Your task to perform on an android device: change timer sound Image 0: 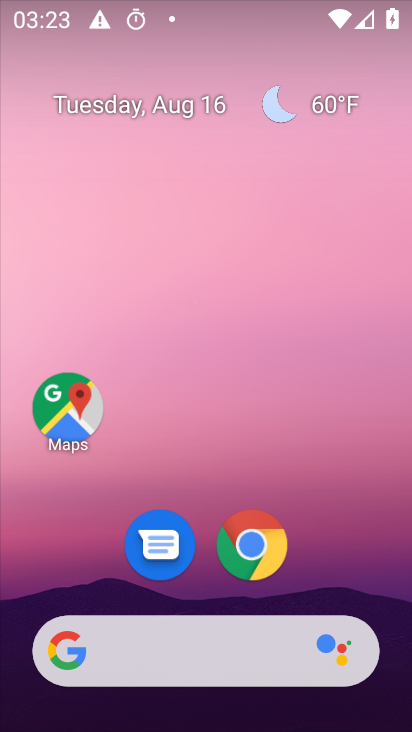
Step 0: drag from (212, 282) to (221, 159)
Your task to perform on an android device: change timer sound Image 1: 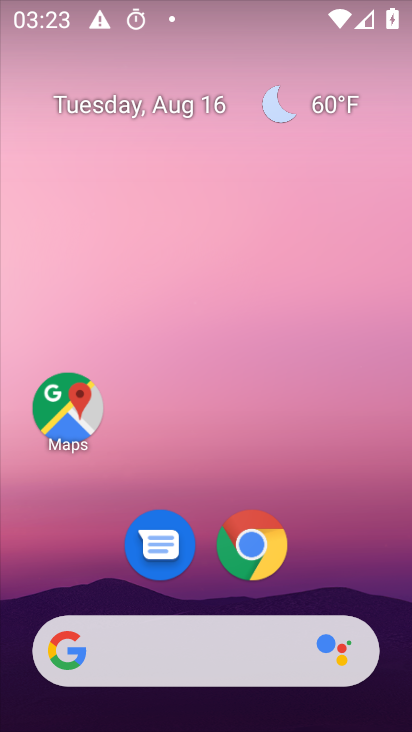
Step 1: drag from (199, 615) to (208, 113)
Your task to perform on an android device: change timer sound Image 2: 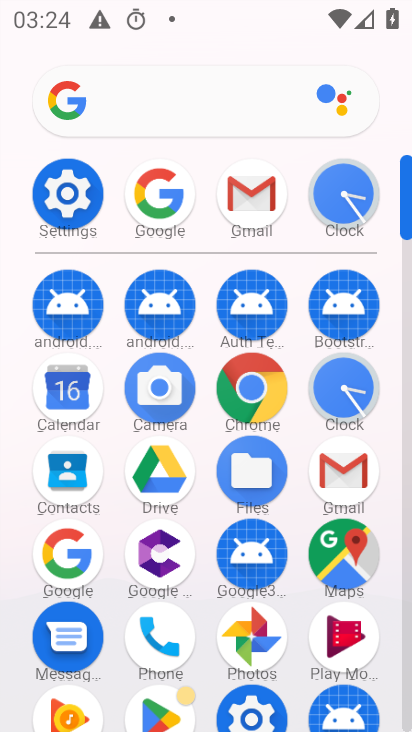
Step 2: click (344, 400)
Your task to perform on an android device: change timer sound Image 3: 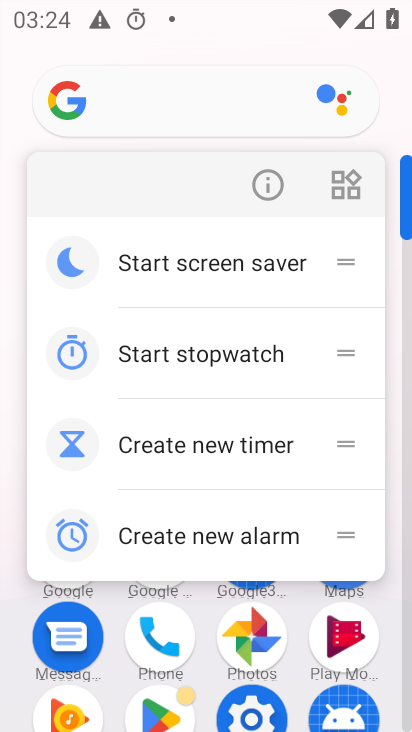
Step 3: click (295, 604)
Your task to perform on an android device: change timer sound Image 4: 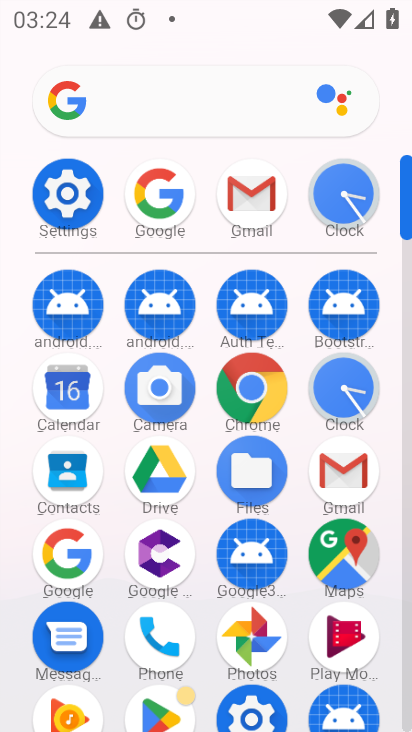
Step 4: click (355, 383)
Your task to perform on an android device: change timer sound Image 5: 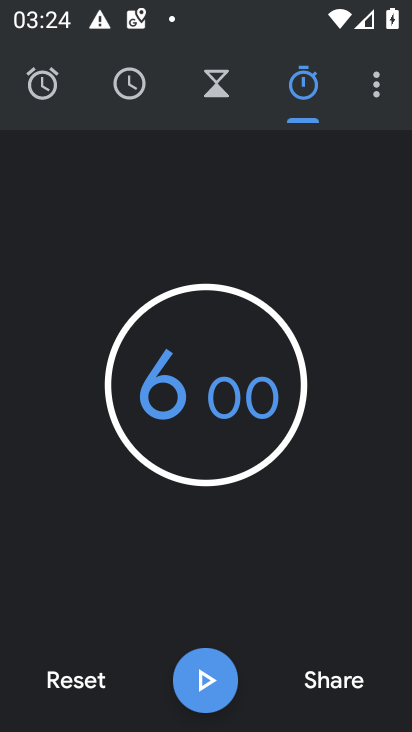
Step 5: click (368, 93)
Your task to perform on an android device: change timer sound Image 6: 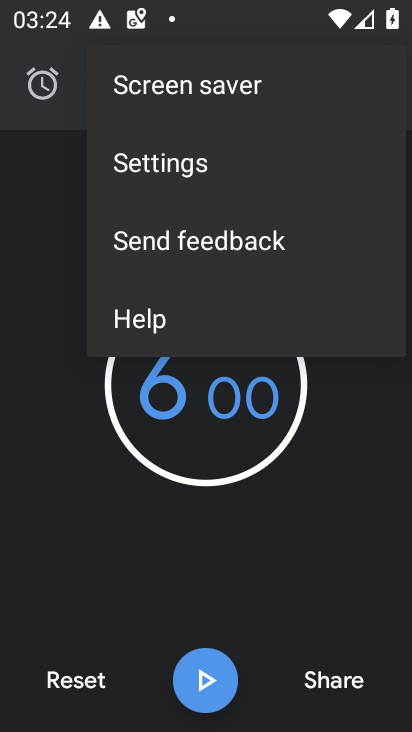
Step 6: click (148, 152)
Your task to perform on an android device: change timer sound Image 7: 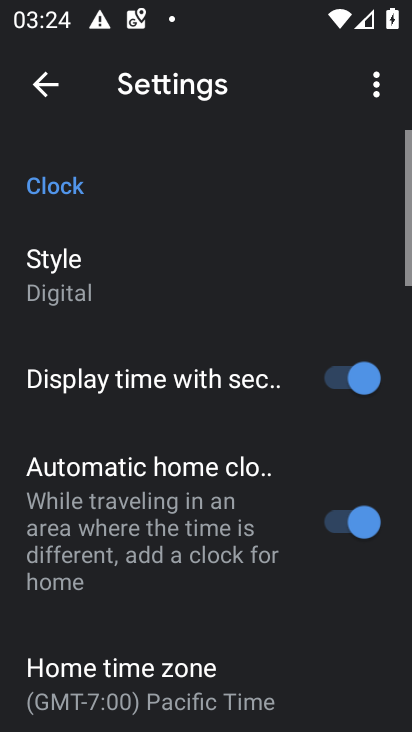
Step 7: drag from (223, 674) to (223, 374)
Your task to perform on an android device: change timer sound Image 8: 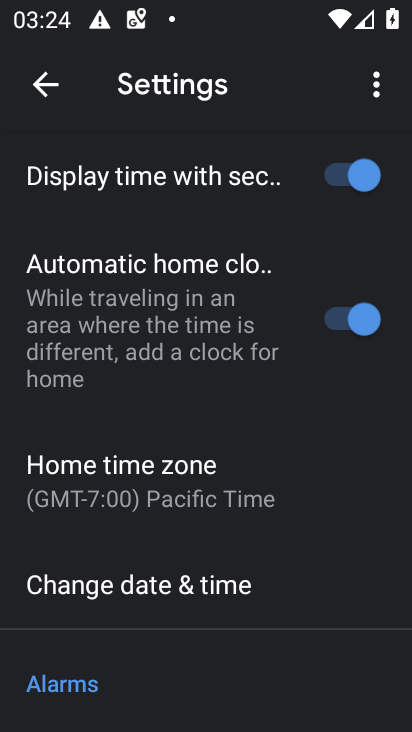
Step 8: drag from (179, 663) to (206, 291)
Your task to perform on an android device: change timer sound Image 9: 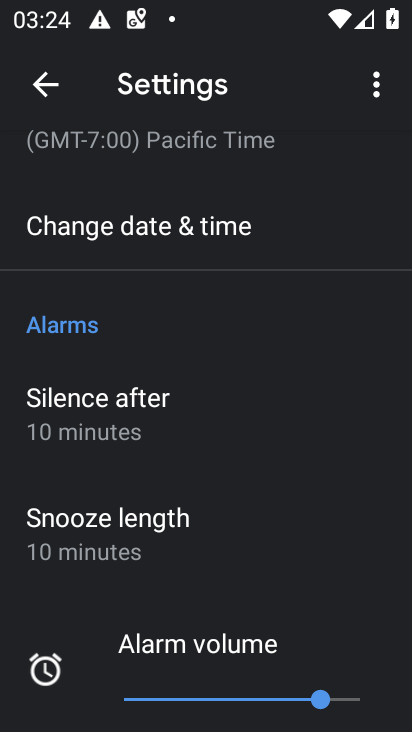
Step 9: drag from (165, 551) to (172, 241)
Your task to perform on an android device: change timer sound Image 10: 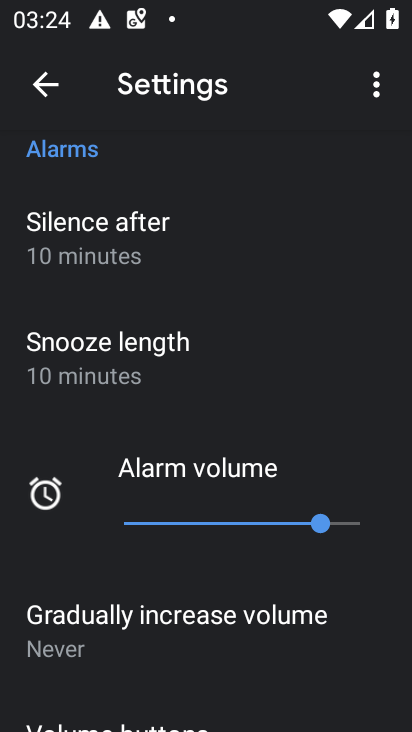
Step 10: drag from (123, 674) to (144, 340)
Your task to perform on an android device: change timer sound Image 11: 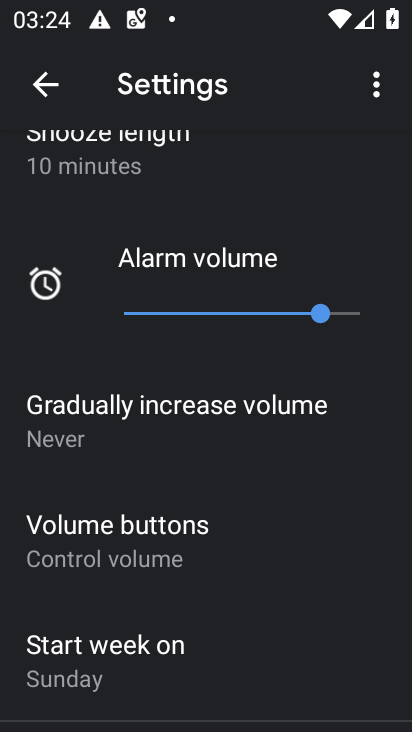
Step 11: drag from (125, 698) to (125, 444)
Your task to perform on an android device: change timer sound Image 12: 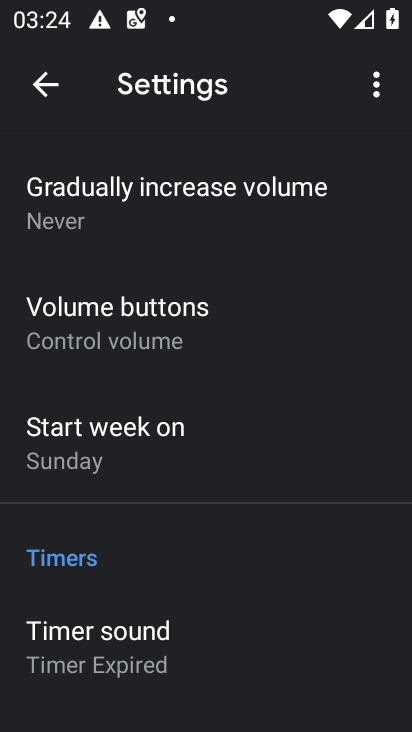
Step 12: click (121, 634)
Your task to perform on an android device: change timer sound Image 13: 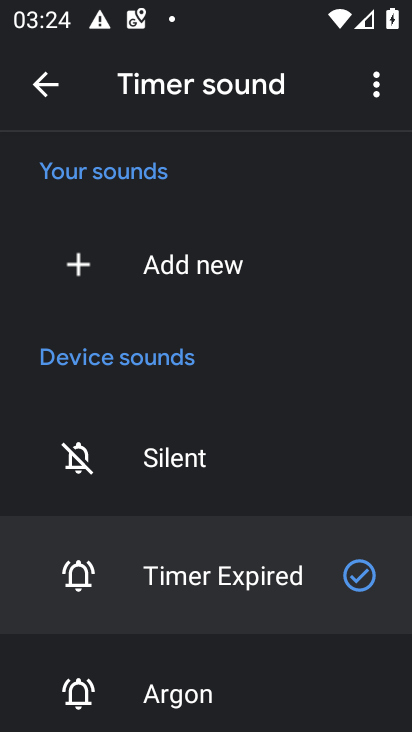
Step 13: click (174, 680)
Your task to perform on an android device: change timer sound Image 14: 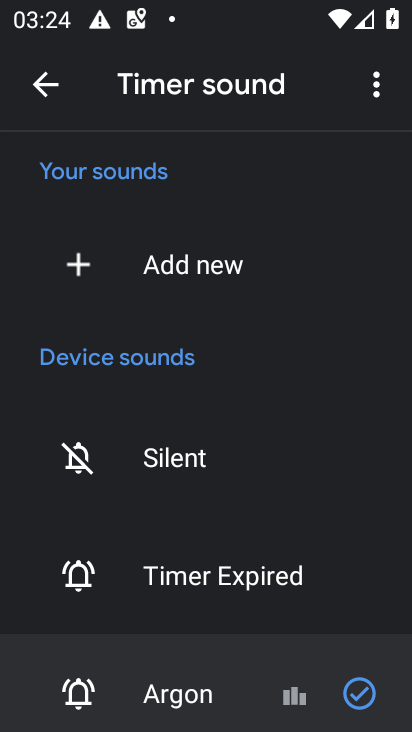
Step 14: task complete